Your task to perform on an android device: Do I have any events today? Image 0: 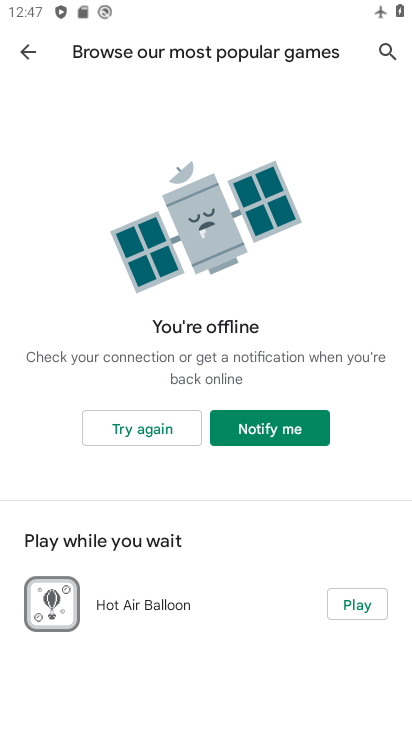
Step 0: press home button
Your task to perform on an android device: Do I have any events today? Image 1: 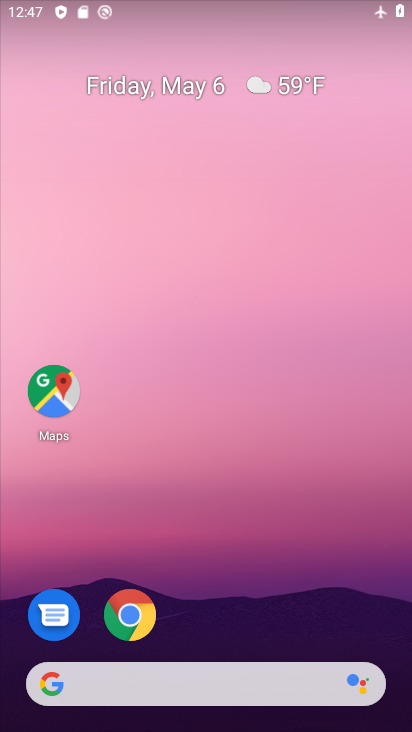
Step 1: drag from (229, 532) to (265, 7)
Your task to perform on an android device: Do I have any events today? Image 2: 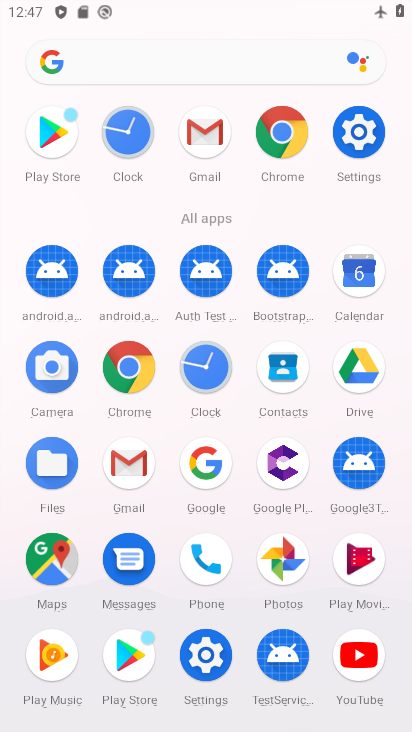
Step 2: click (360, 272)
Your task to perform on an android device: Do I have any events today? Image 3: 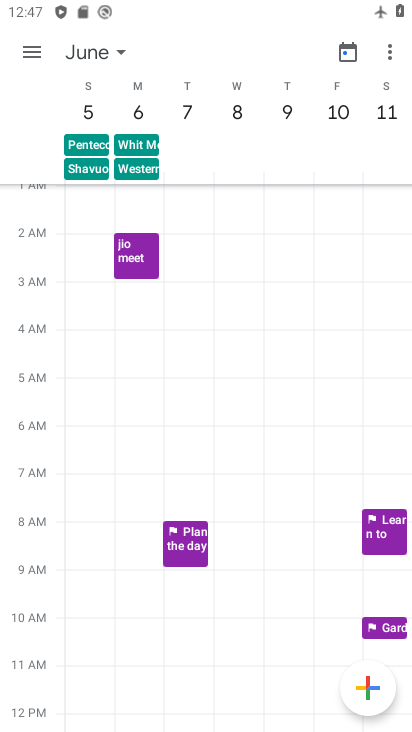
Step 3: click (35, 42)
Your task to perform on an android device: Do I have any events today? Image 4: 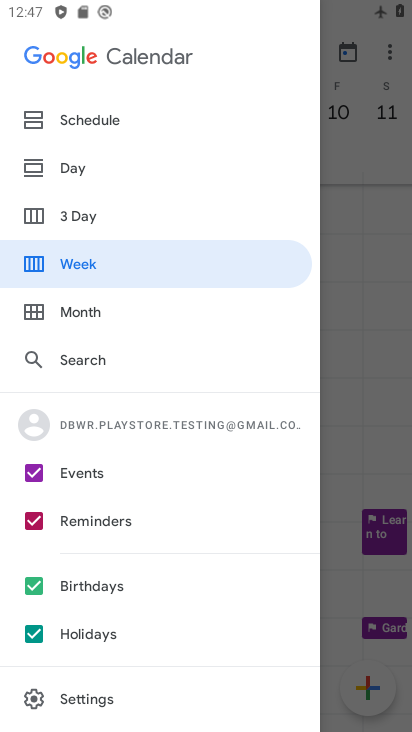
Step 4: click (63, 301)
Your task to perform on an android device: Do I have any events today? Image 5: 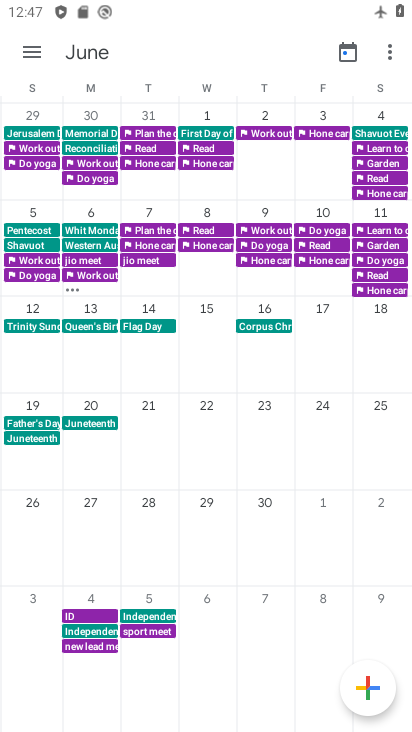
Step 5: drag from (60, 473) to (406, 432)
Your task to perform on an android device: Do I have any events today? Image 6: 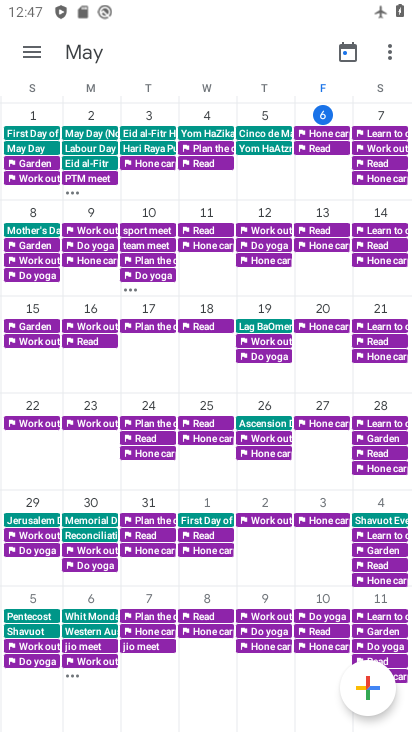
Step 6: click (322, 117)
Your task to perform on an android device: Do I have any events today? Image 7: 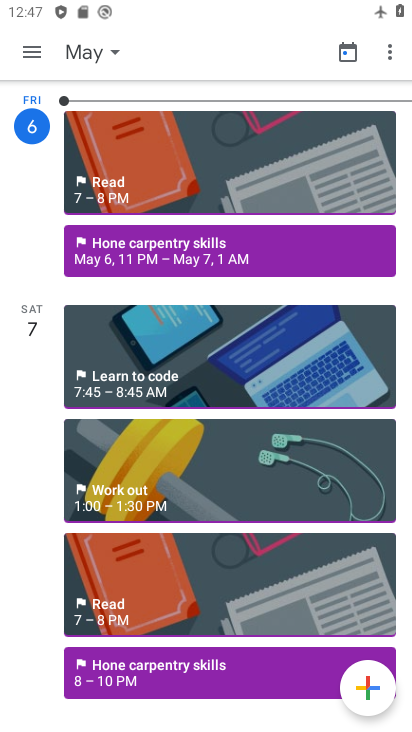
Step 7: task complete